Your task to perform on an android device: Go to Reddit.com Image 0: 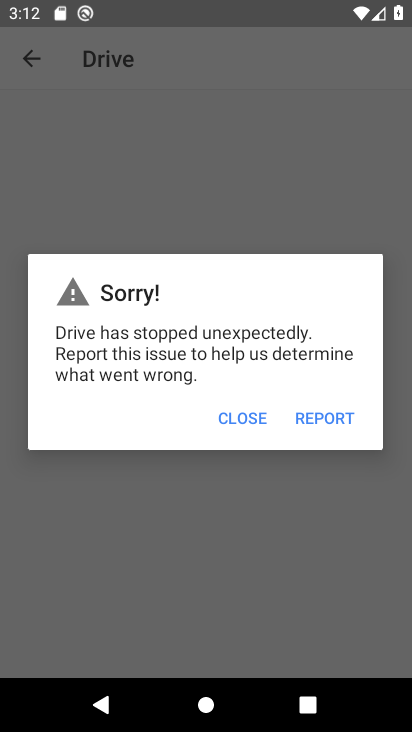
Step 0: press home button
Your task to perform on an android device: Go to Reddit.com Image 1: 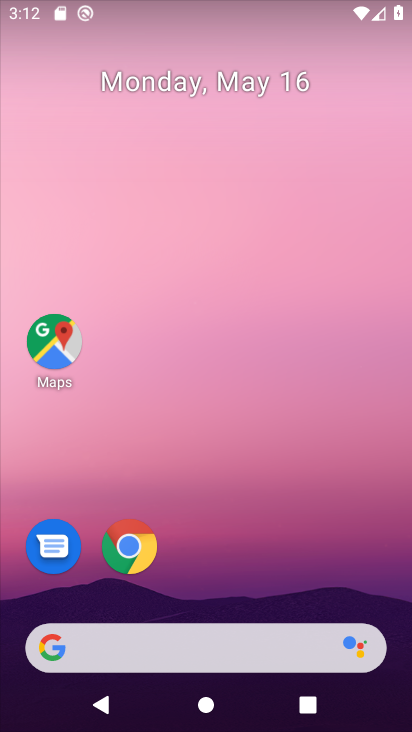
Step 1: drag from (363, 577) to (374, 191)
Your task to perform on an android device: Go to Reddit.com Image 2: 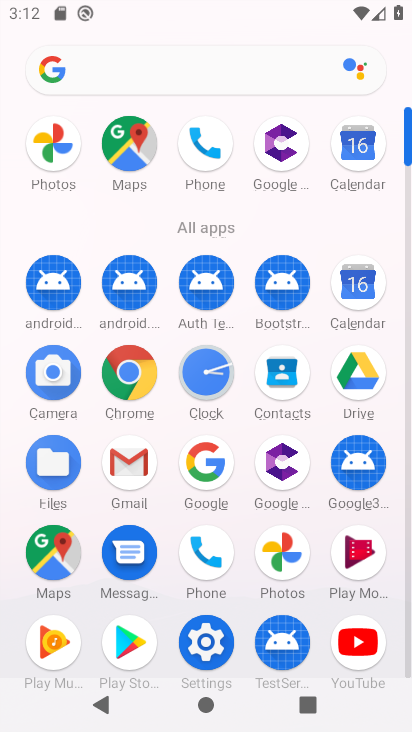
Step 2: click (125, 380)
Your task to perform on an android device: Go to Reddit.com Image 3: 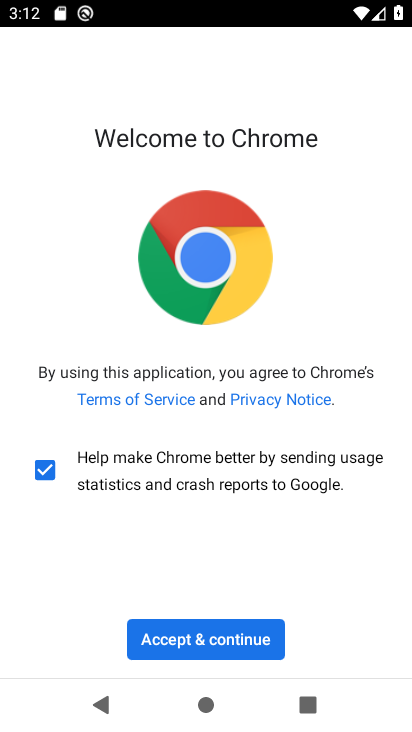
Step 3: click (251, 651)
Your task to perform on an android device: Go to Reddit.com Image 4: 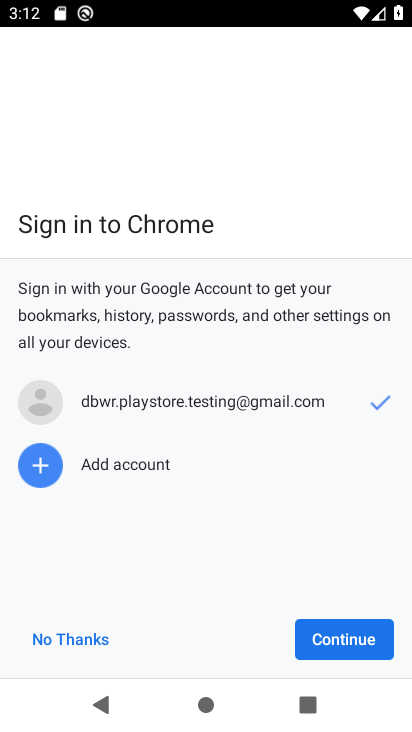
Step 4: click (329, 642)
Your task to perform on an android device: Go to Reddit.com Image 5: 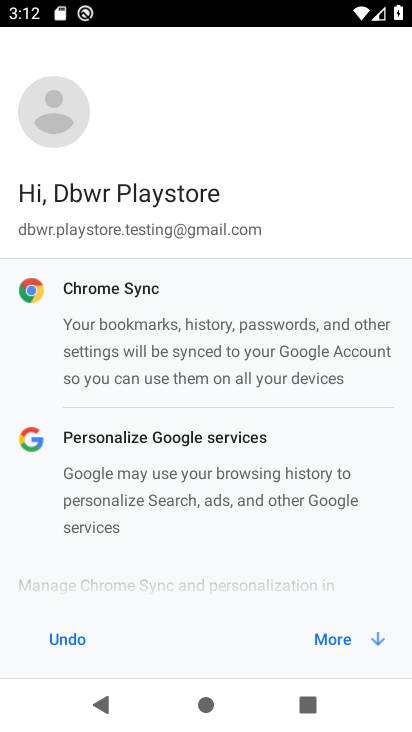
Step 5: click (329, 642)
Your task to perform on an android device: Go to Reddit.com Image 6: 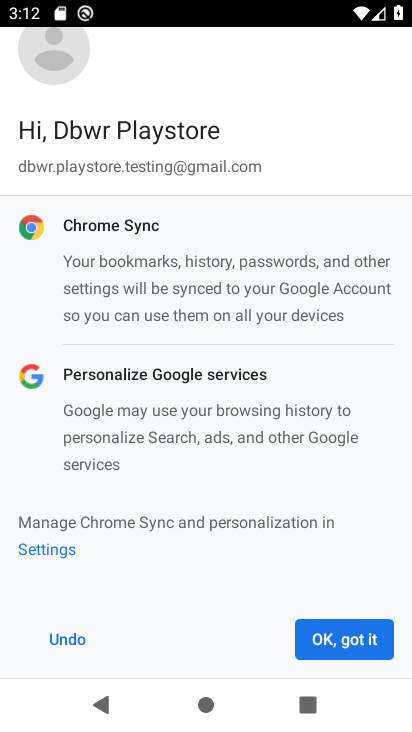
Step 6: click (329, 642)
Your task to perform on an android device: Go to Reddit.com Image 7: 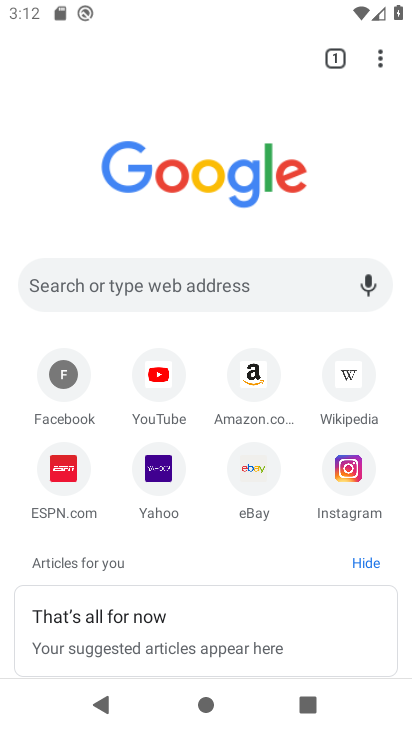
Step 7: click (255, 282)
Your task to perform on an android device: Go to Reddit.com Image 8: 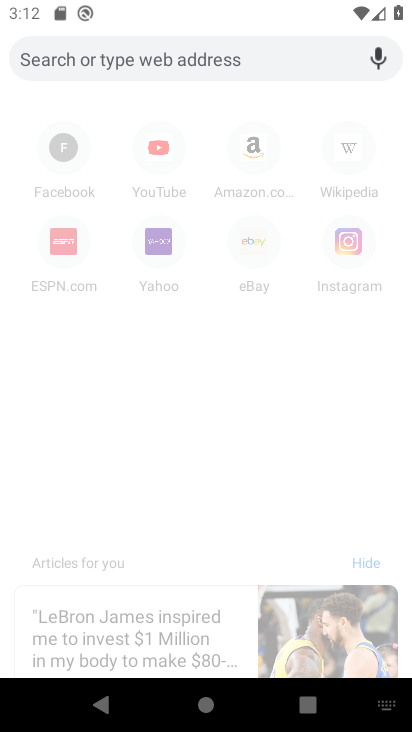
Step 8: type "reddit.com"
Your task to perform on an android device: Go to Reddit.com Image 9: 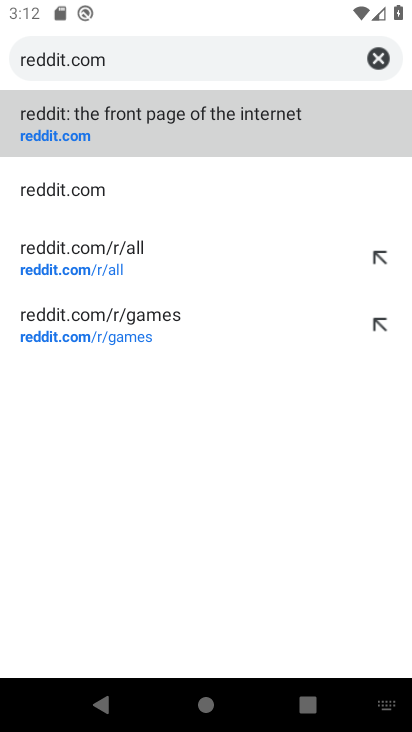
Step 9: click (111, 203)
Your task to perform on an android device: Go to Reddit.com Image 10: 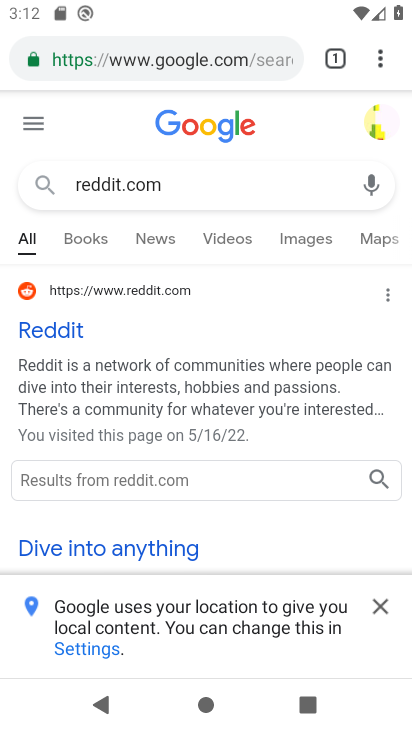
Step 10: task complete